Your task to perform on an android device: change notifications settings Image 0: 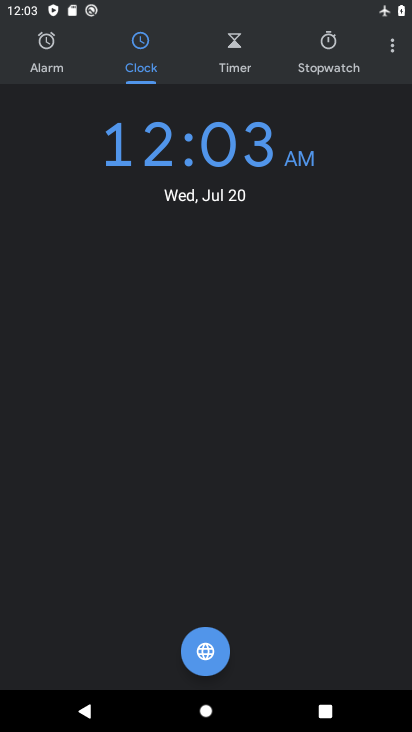
Step 0: press home button
Your task to perform on an android device: change notifications settings Image 1: 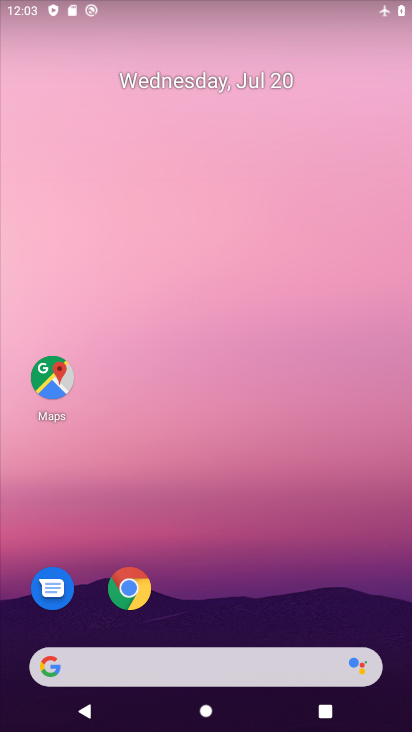
Step 1: drag from (260, 495) to (227, 112)
Your task to perform on an android device: change notifications settings Image 2: 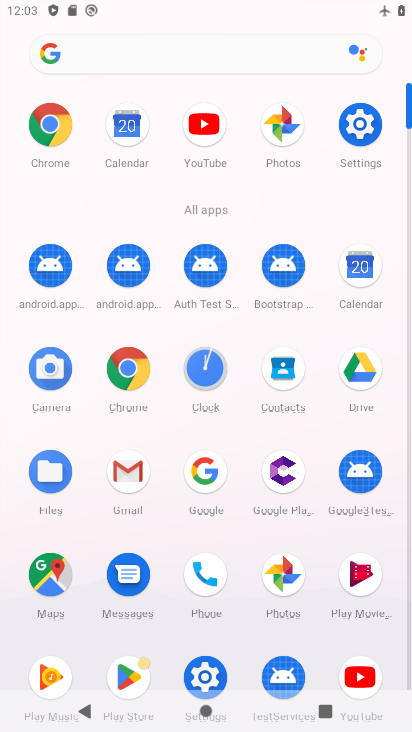
Step 2: click (372, 106)
Your task to perform on an android device: change notifications settings Image 3: 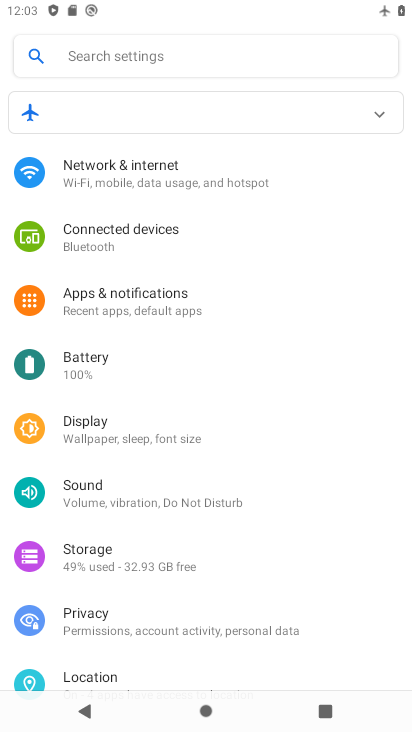
Step 3: click (175, 308)
Your task to perform on an android device: change notifications settings Image 4: 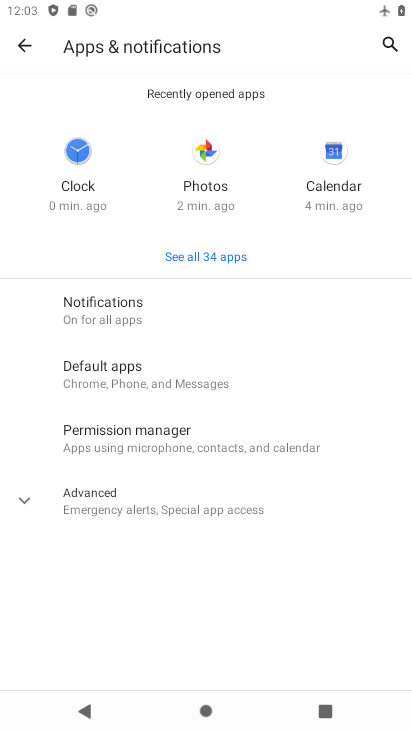
Step 4: click (120, 319)
Your task to perform on an android device: change notifications settings Image 5: 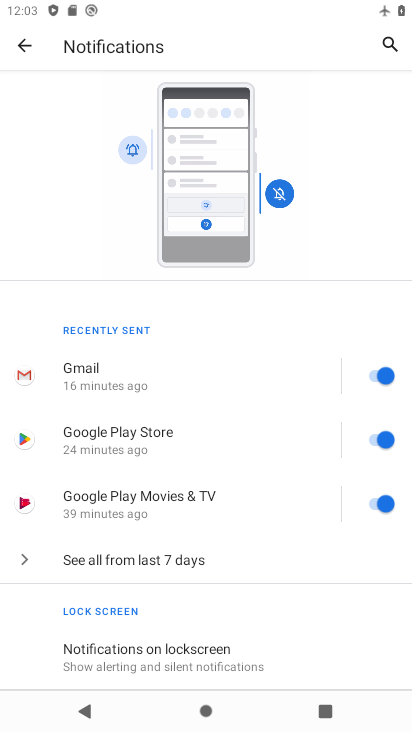
Step 5: click (186, 548)
Your task to perform on an android device: change notifications settings Image 6: 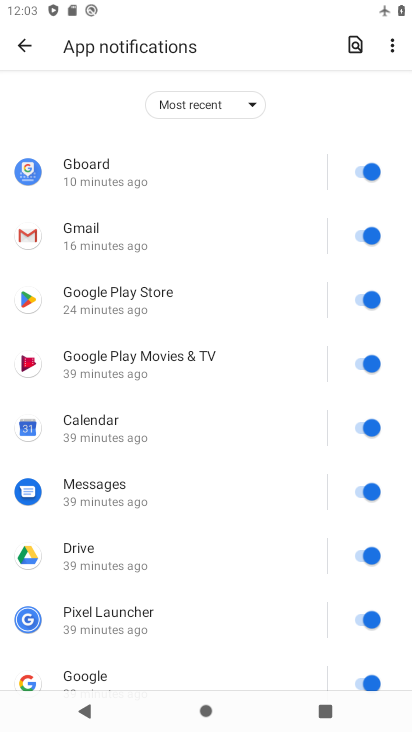
Step 6: click (366, 164)
Your task to perform on an android device: change notifications settings Image 7: 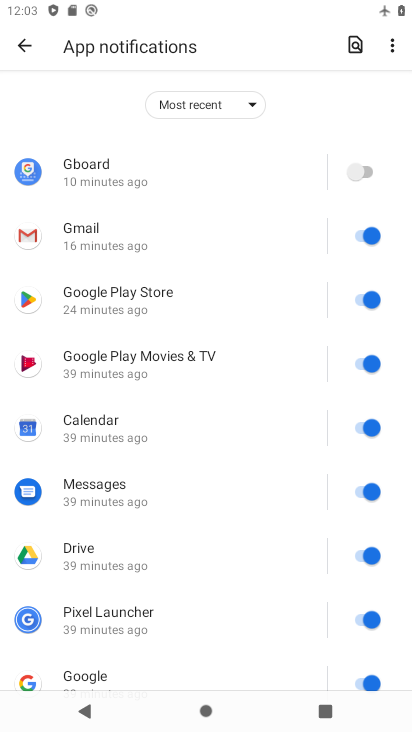
Step 7: click (375, 234)
Your task to perform on an android device: change notifications settings Image 8: 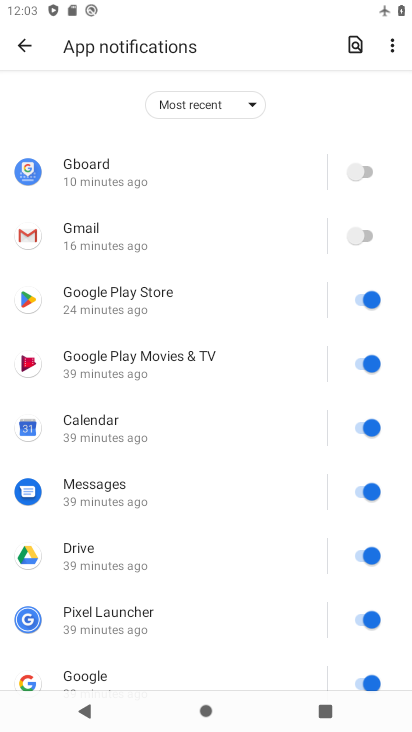
Step 8: click (376, 302)
Your task to perform on an android device: change notifications settings Image 9: 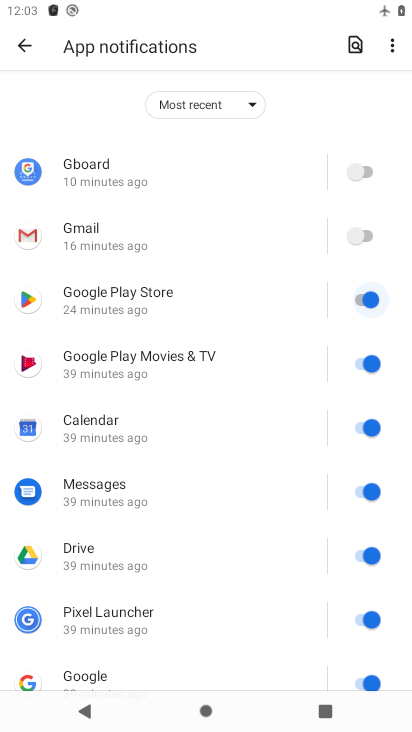
Step 9: click (372, 365)
Your task to perform on an android device: change notifications settings Image 10: 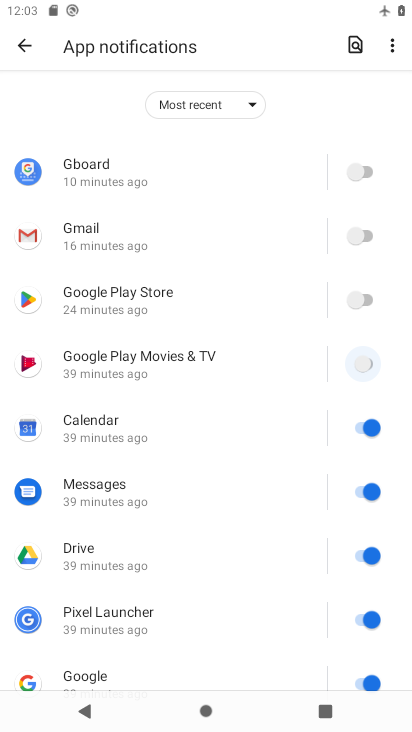
Step 10: click (366, 413)
Your task to perform on an android device: change notifications settings Image 11: 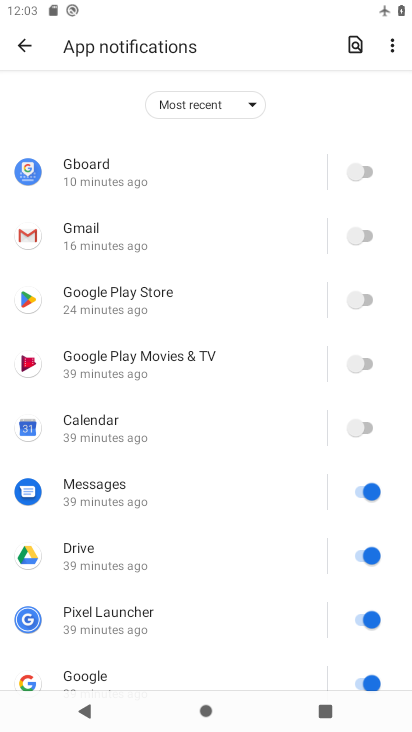
Step 11: click (366, 435)
Your task to perform on an android device: change notifications settings Image 12: 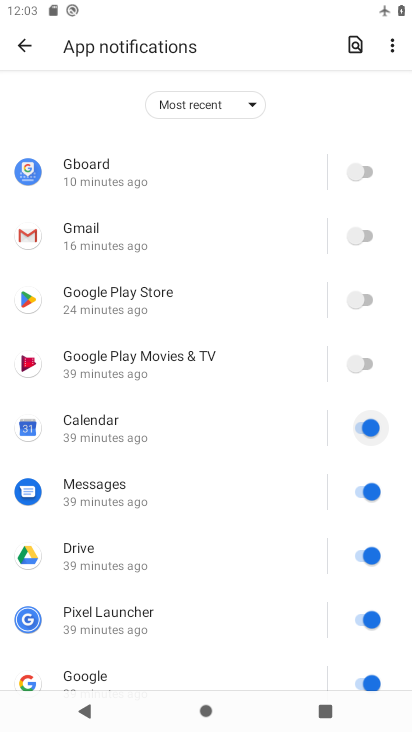
Step 12: click (374, 502)
Your task to perform on an android device: change notifications settings Image 13: 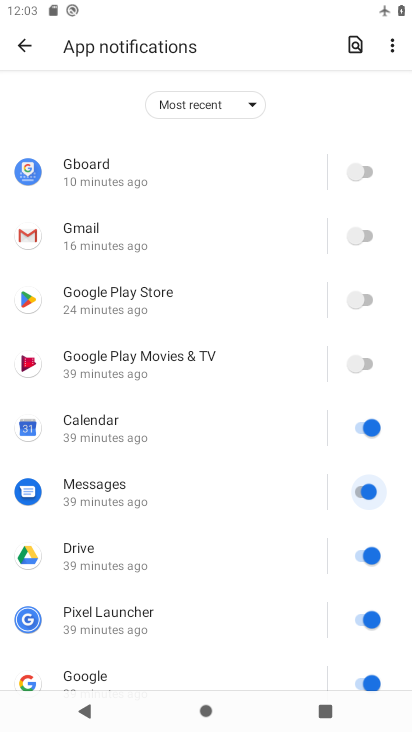
Step 13: click (368, 552)
Your task to perform on an android device: change notifications settings Image 14: 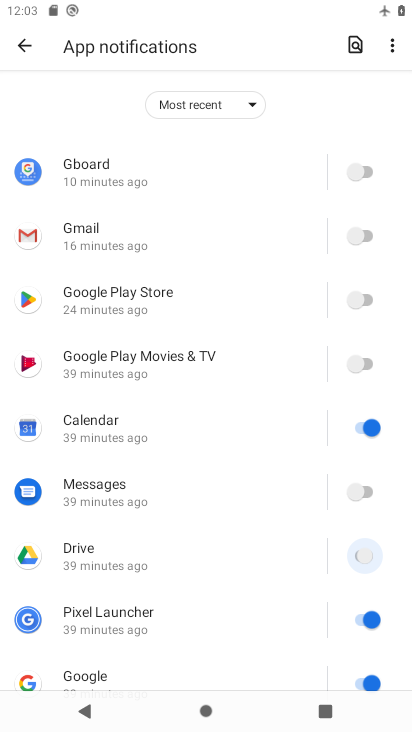
Step 14: click (366, 599)
Your task to perform on an android device: change notifications settings Image 15: 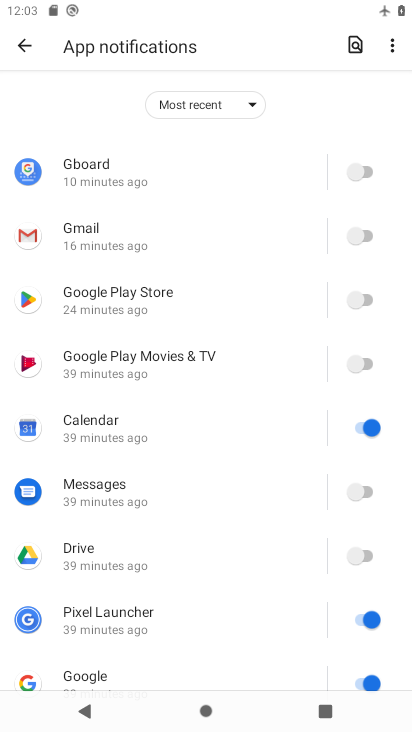
Step 15: click (366, 619)
Your task to perform on an android device: change notifications settings Image 16: 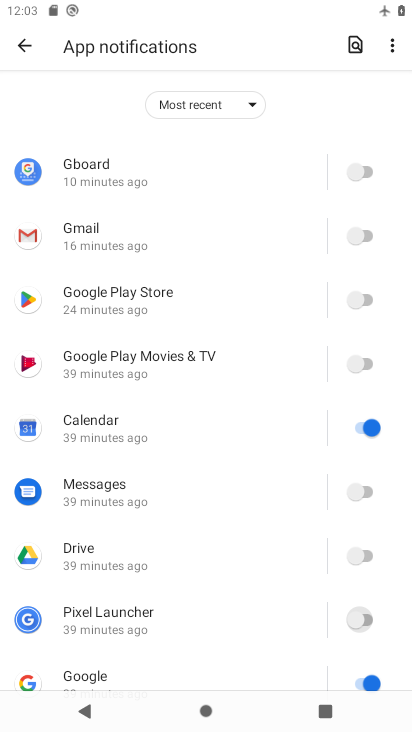
Step 16: click (372, 684)
Your task to perform on an android device: change notifications settings Image 17: 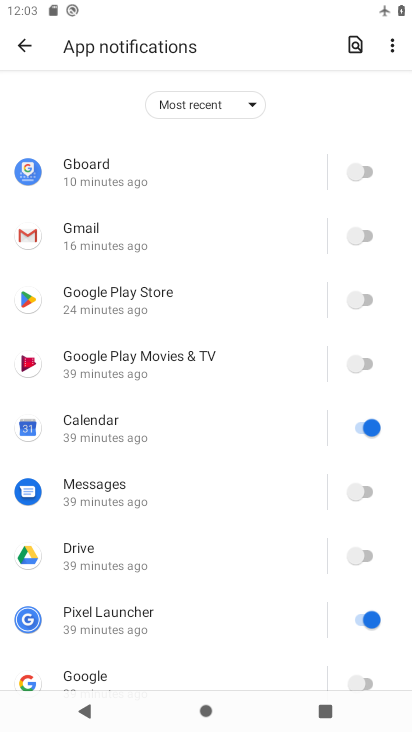
Step 17: click (367, 407)
Your task to perform on an android device: change notifications settings Image 18: 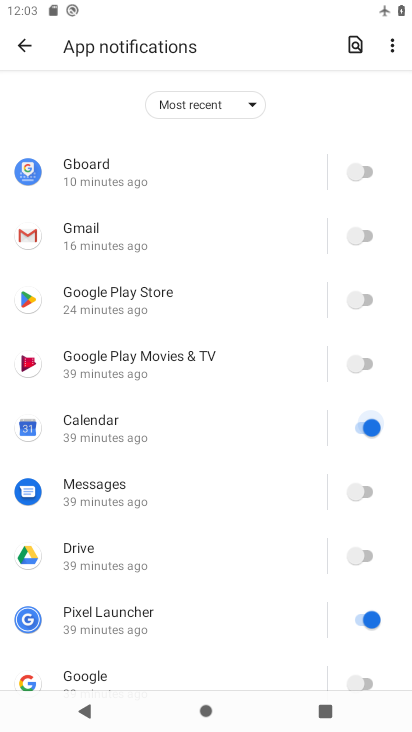
Step 18: click (367, 416)
Your task to perform on an android device: change notifications settings Image 19: 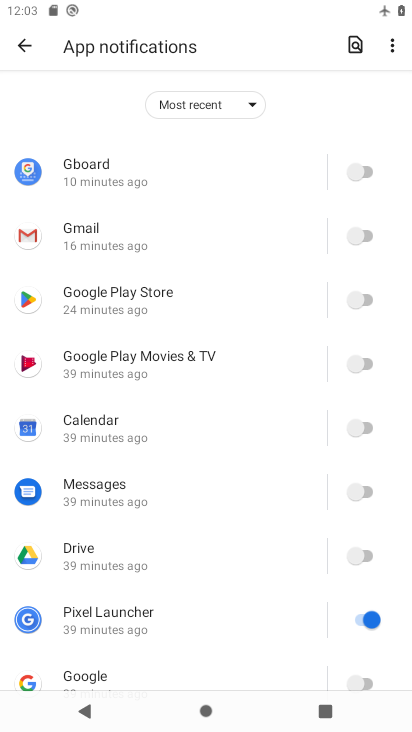
Step 19: click (367, 425)
Your task to perform on an android device: change notifications settings Image 20: 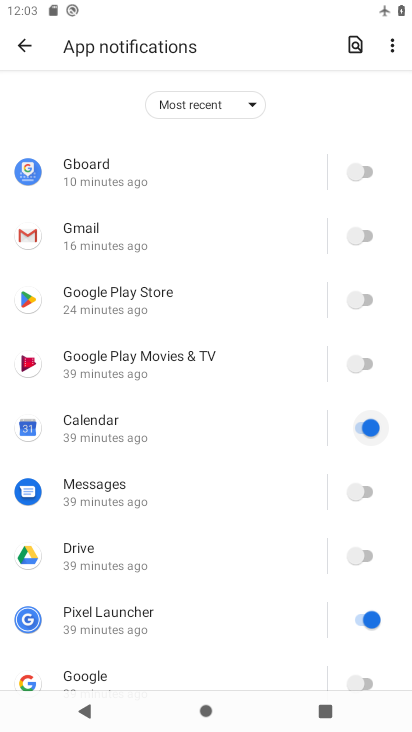
Step 20: drag from (279, 517) to (248, 4)
Your task to perform on an android device: change notifications settings Image 21: 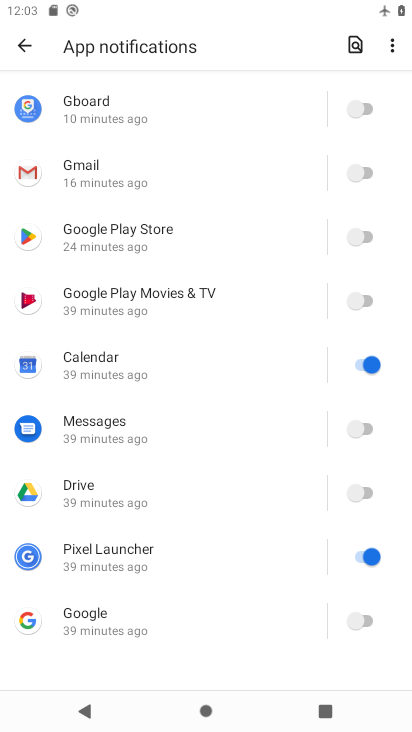
Step 21: click (358, 360)
Your task to perform on an android device: change notifications settings Image 22: 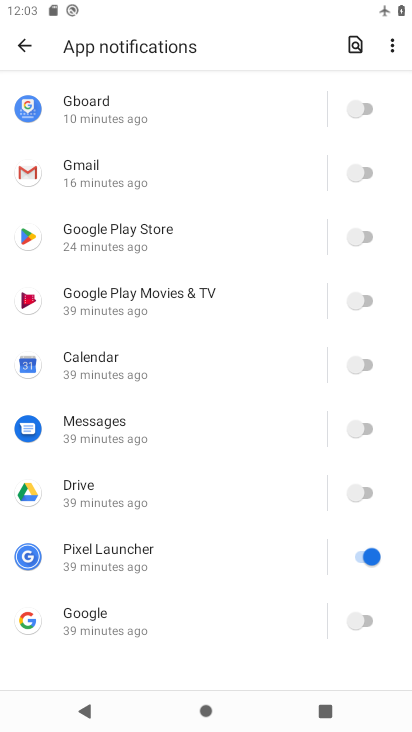
Step 22: click (359, 557)
Your task to perform on an android device: change notifications settings Image 23: 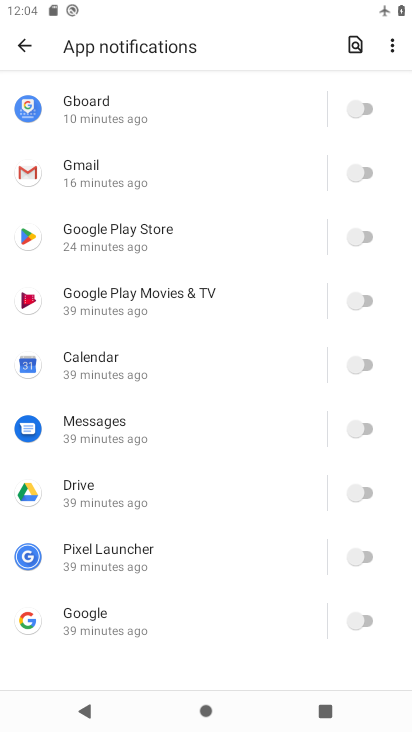
Step 23: task complete